Your task to perform on an android device: toggle show notifications on the lock screen Image 0: 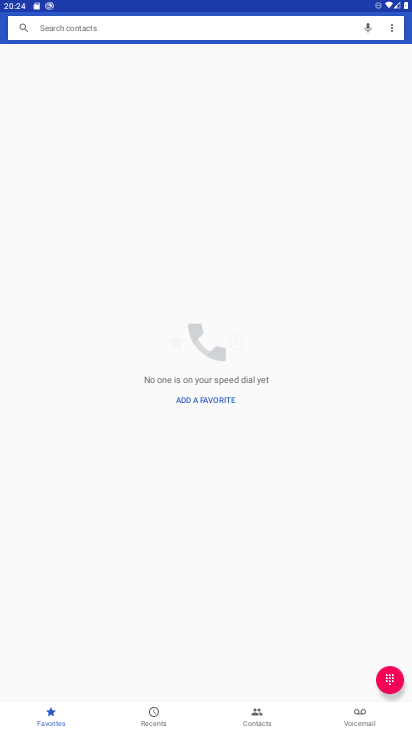
Step 0: press home button
Your task to perform on an android device: toggle show notifications on the lock screen Image 1: 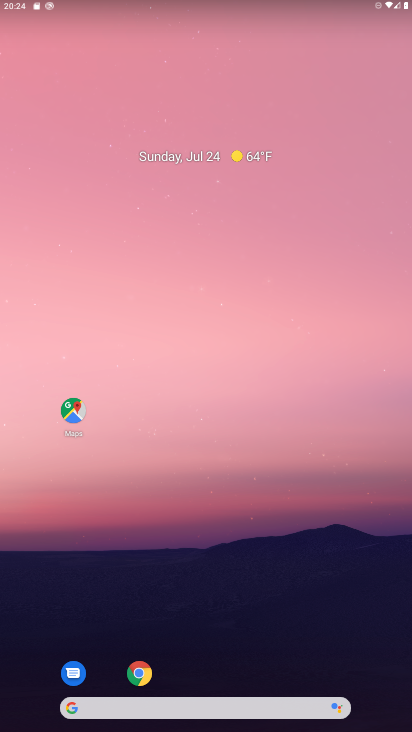
Step 1: drag from (309, 590) to (287, 164)
Your task to perform on an android device: toggle show notifications on the lock screen Image 2: 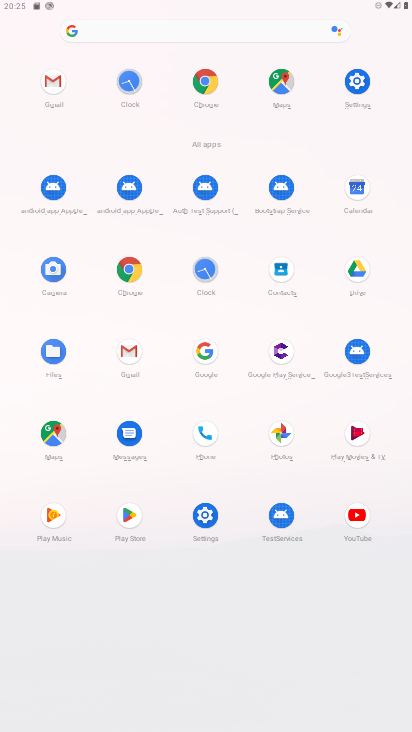
Step 2: click (208, 526)
Your task to perform on an android device: toggle show notifications on the lock screen Image 3: 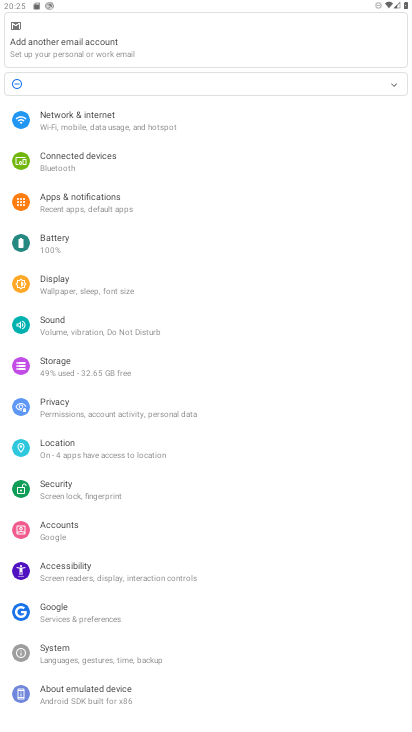
Step 3: click (90, 202)
Your task to perform on an android device: toggle show notifications on the lock screen Image 4: 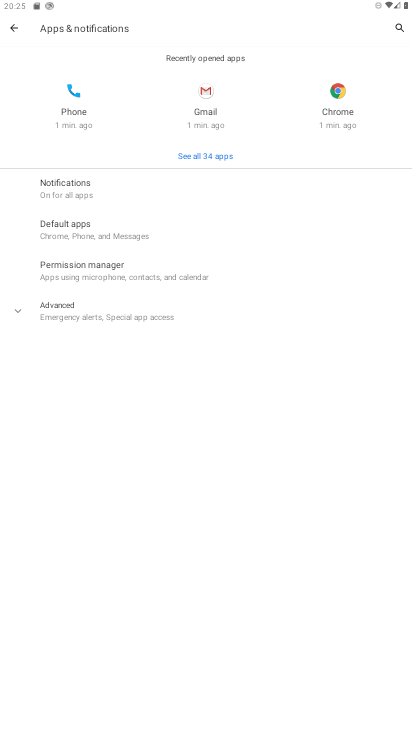
Step 4: click (66, 182)
Your task to perform on an android device: toggle show notifications on the lock screen Image 5: 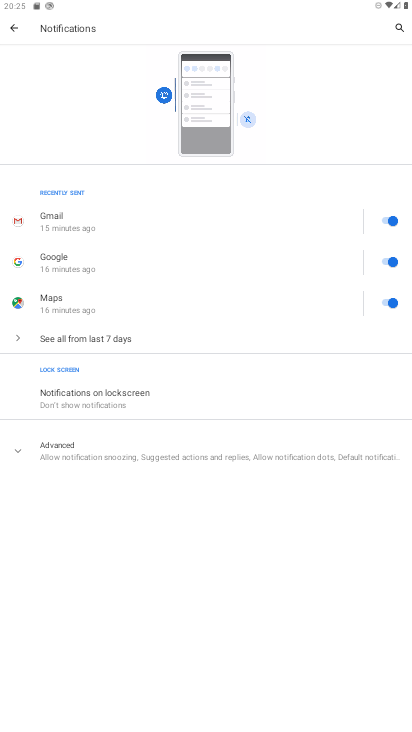
Step 5: click (120, 401)
Your task to perform on an android device: toggle show notifications on the lock screen Image 6: 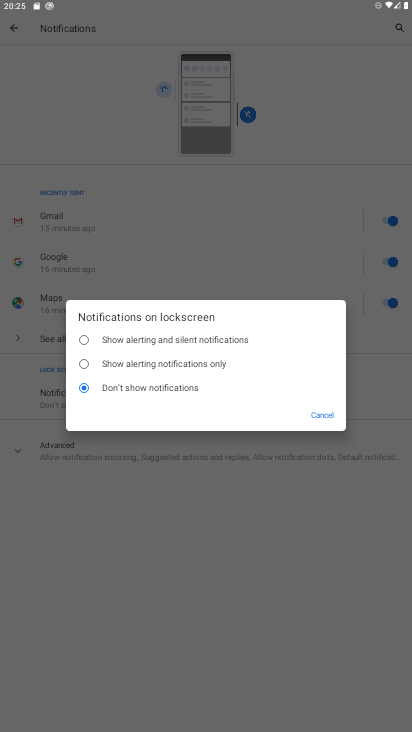
Step 6: click (83, 340)
Your task to perform on an android device: toggle show notifications on the lock screen Image 7: 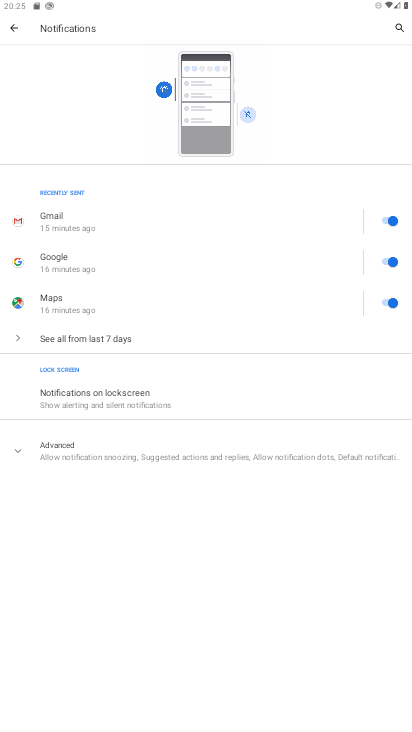
Step 7: task complete